Your task to perform on an android device: Open calendar and show me the second week of next month Image 0: 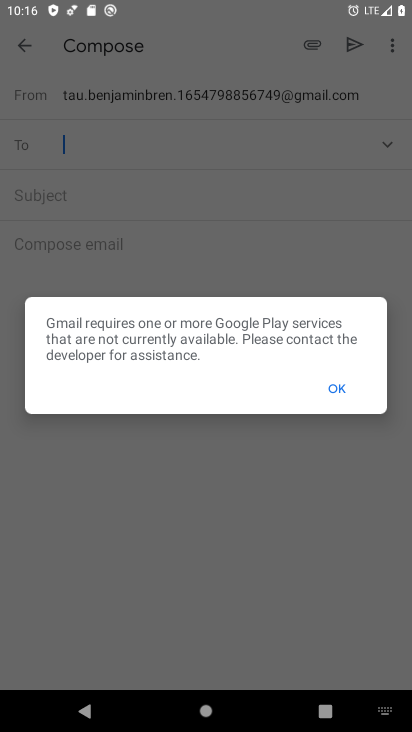
Step 0: press home button
Your task to perform on an android device: Open calendar and show me the second week of next month Image 1: 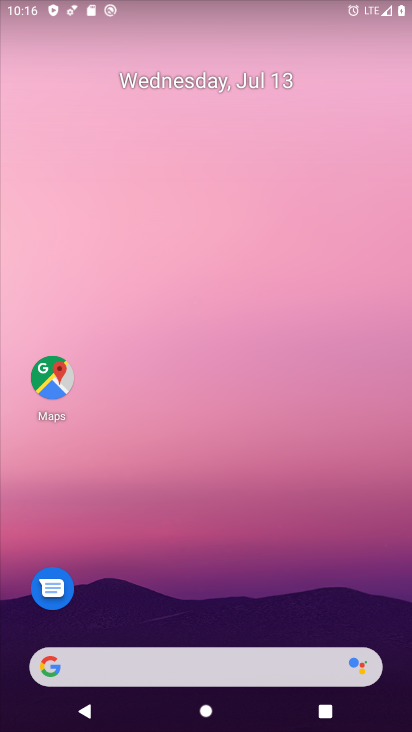
Step 1: drag from (201, 349) to (261, 42)
Your task to perform on an android device: Open calendar and show me the second week of next month Image 2: 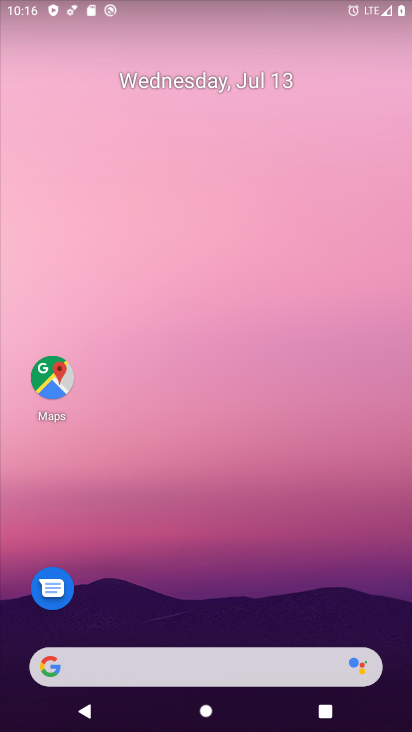
Step 2: drag from (146, 622) to (335, 2)
Your task to perform on an android device: Open calendar and show me the second week of next month Image 3: 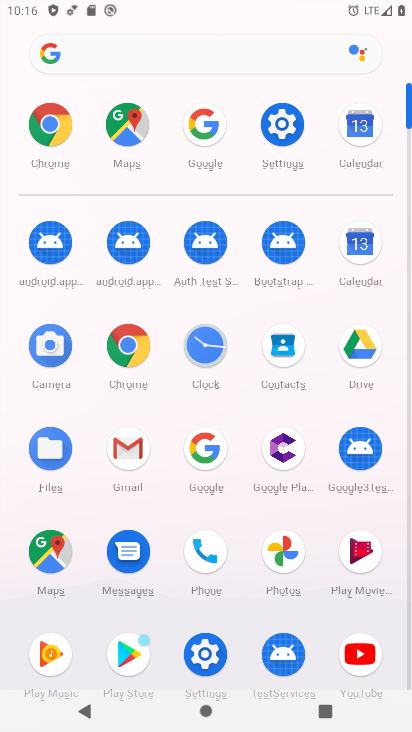
Step 3: click (363, 232)
Your task to perform on an android device: Open calendar and show me the second week of next month Image 4: 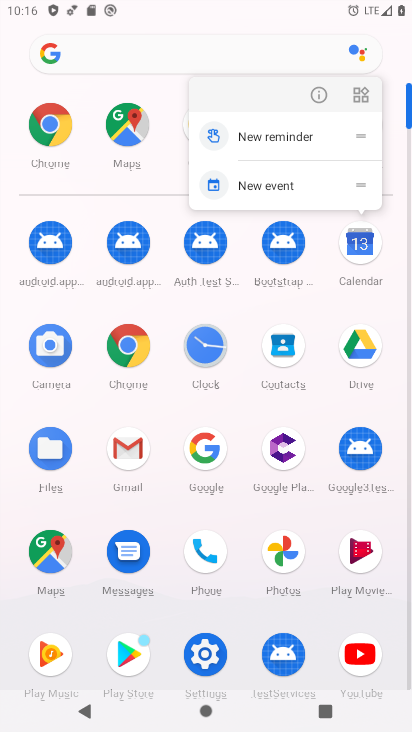
Step 4: click (353, 243)
Your task to perform on an android device: Open calendar and show me the second week of next month Image 5: 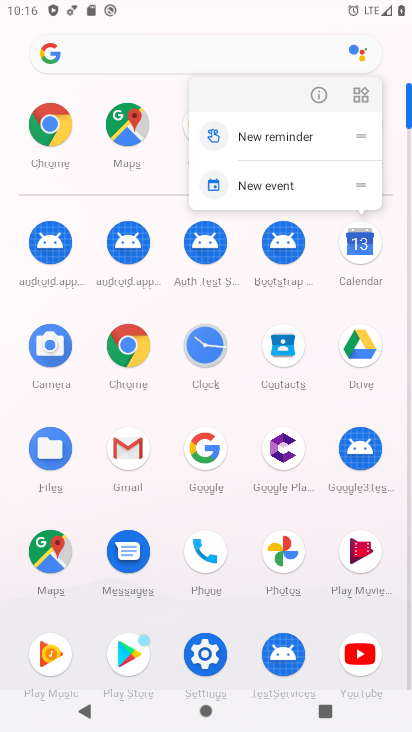
Step 5: click (353, 243)
Your task to perform on an android device: Open calendar and show me the second week of next month Image 6: 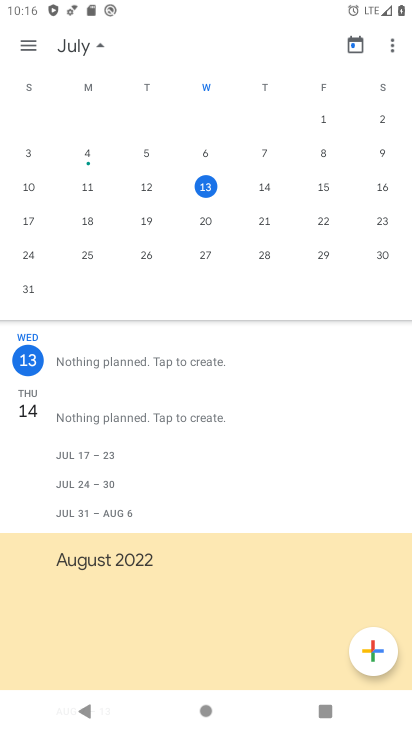
Step 6: drag from (303, 181) to (35, 268)
Your task to perform on an android device: Open calendar and show me the second week of next month Image 7: 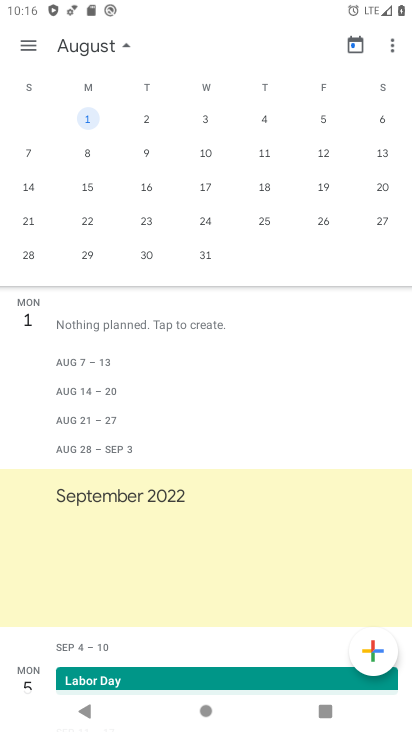
Step 7: click (20, 152)
Your task to perform on an android device: Open calendar and show me the second week of next month Image 8: 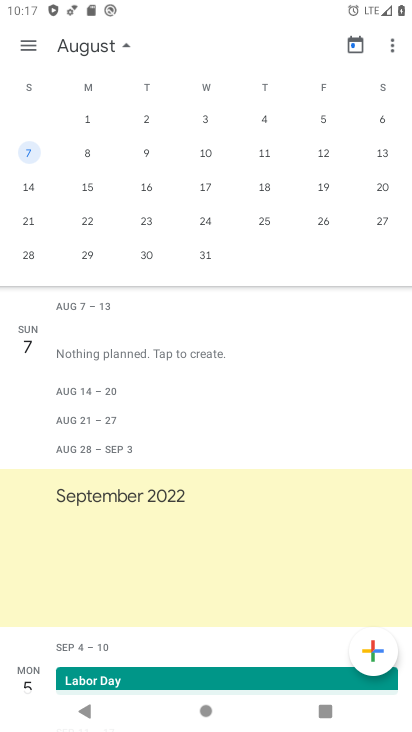
Step 8: task complete